Your task to perform on an android device: Open accessibility settings Image 0: 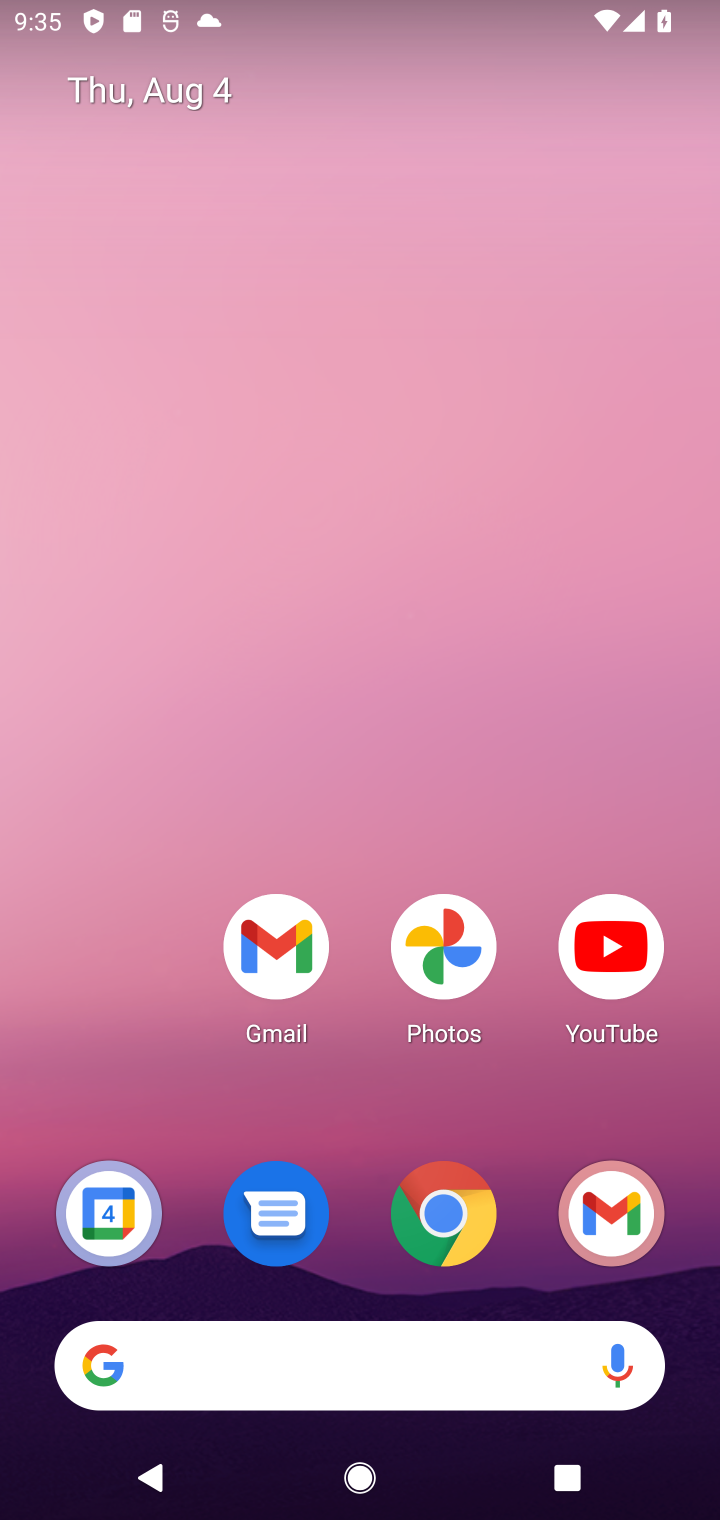
Step 0: press home button
Your task to perform on an android device: Open accessibility settings Image 1: 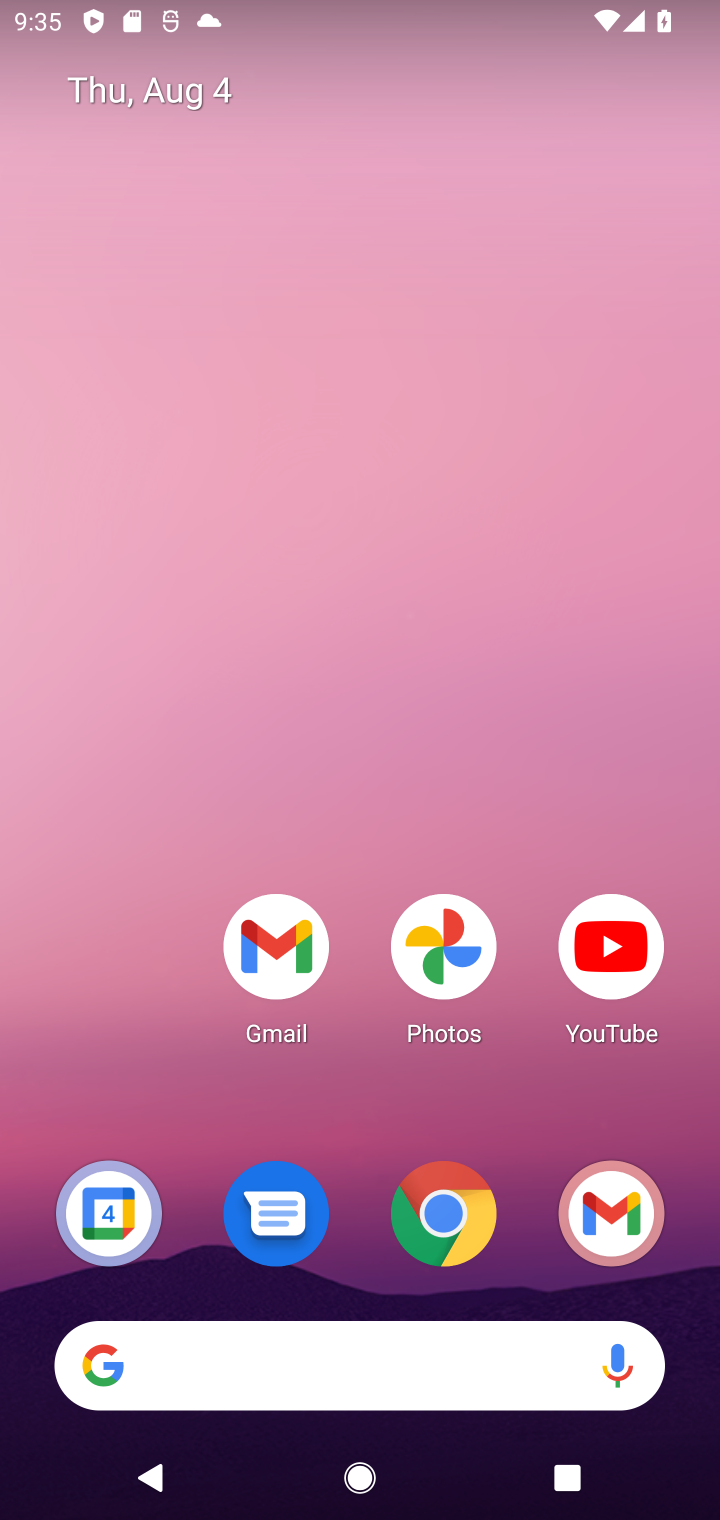
Step 1: drag from (356, 1138) to (473, 2)
Your task to perform on an android device: Open accessibility settings Image 2: 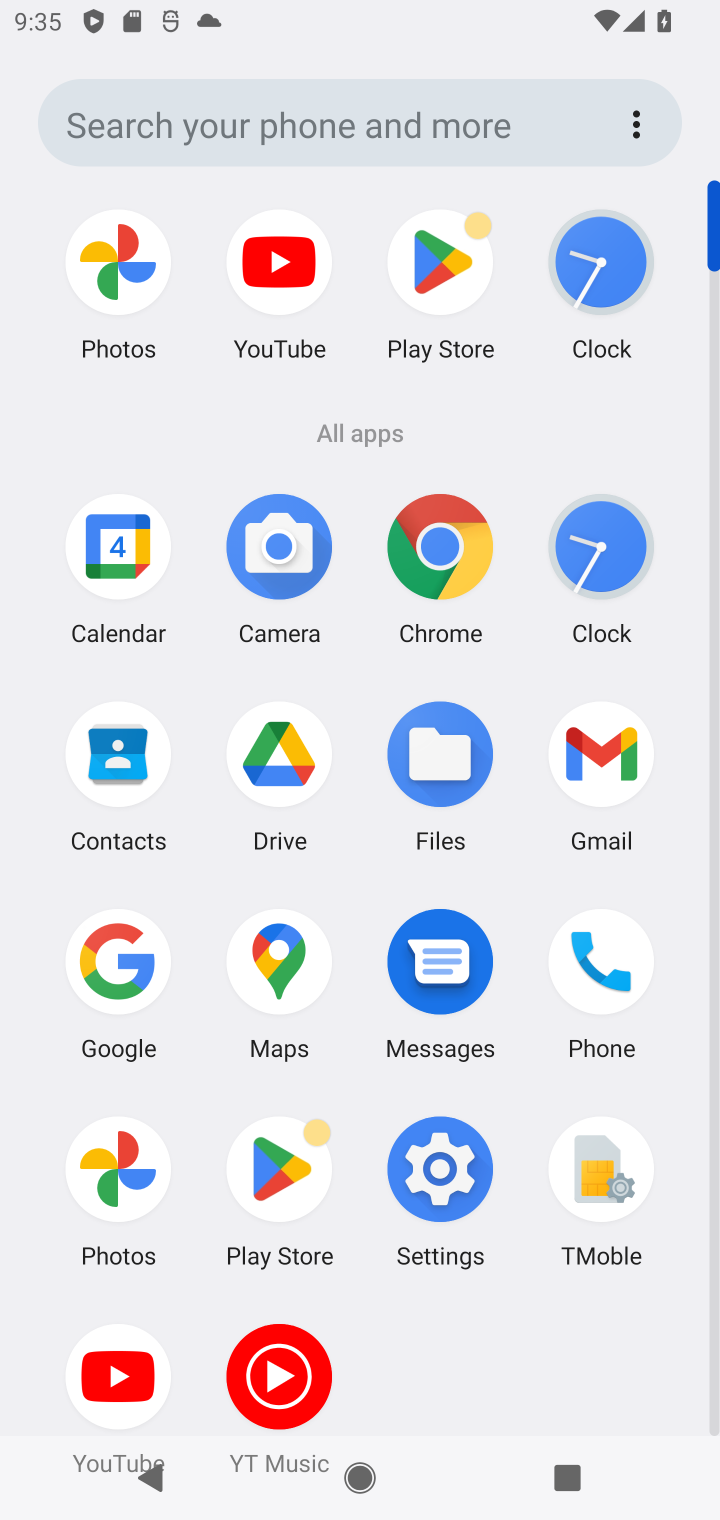
Step 2: click (430, 1155)
Your task to perform on an android device: Open accessibility settings Image 3: 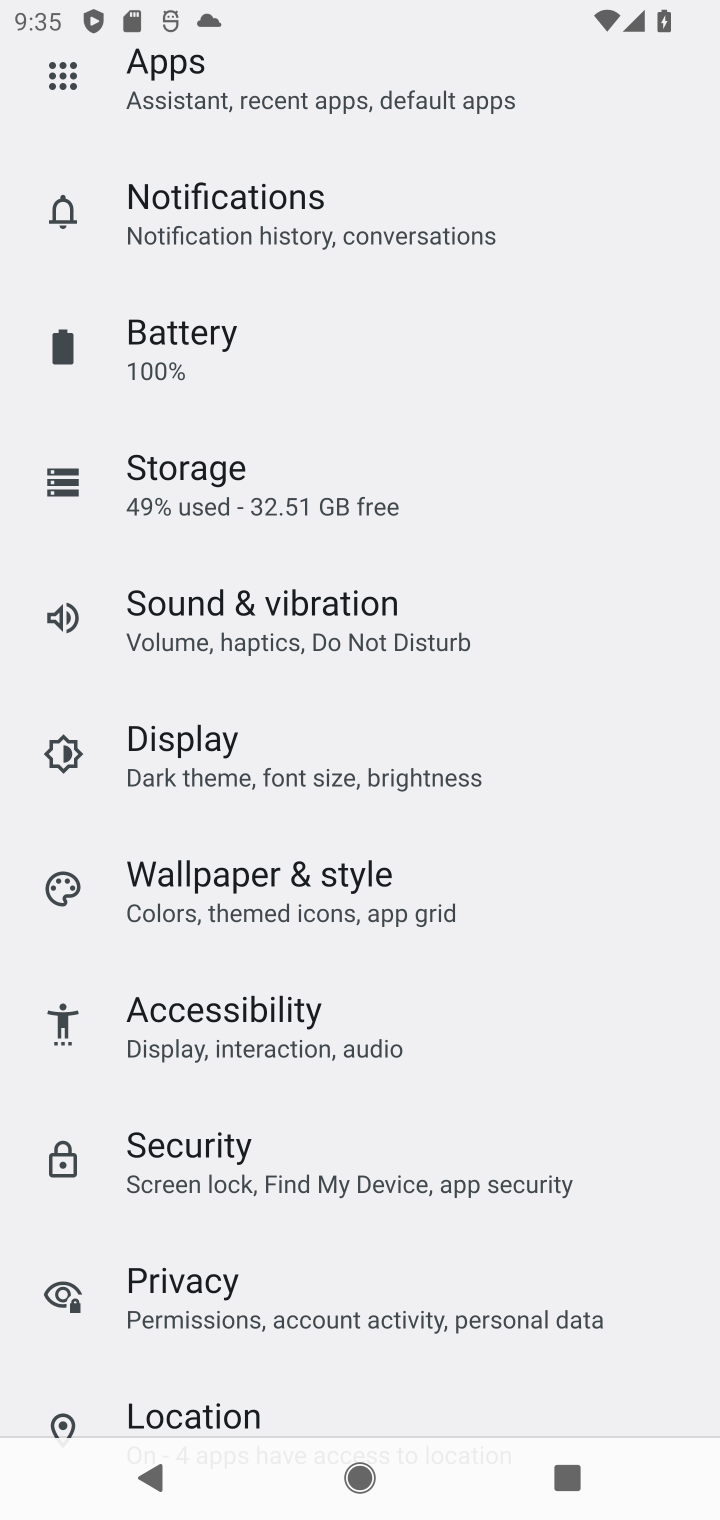
Step 3: click (346, 1011)
Your task to perform on an android device: Open accessibility settings Image 4: 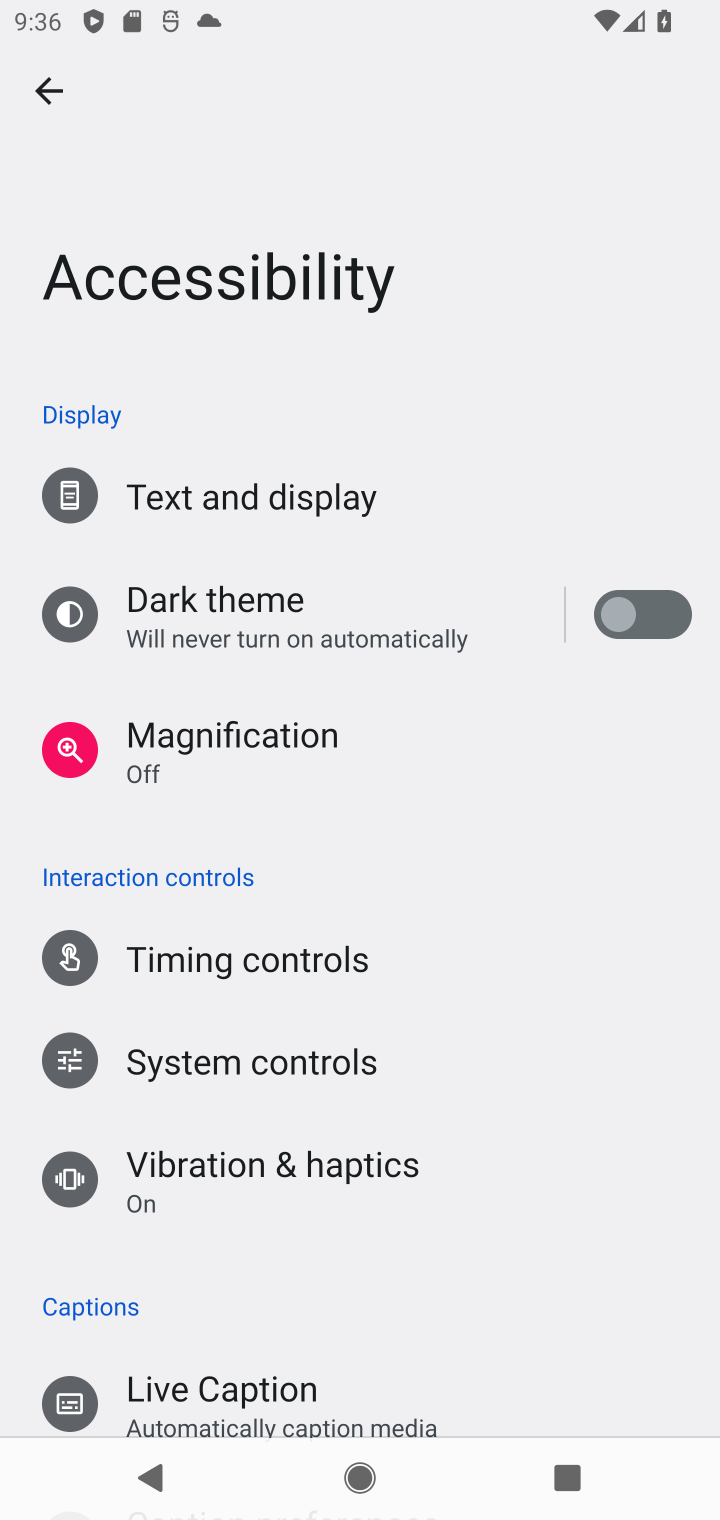
Step 4: task complete